Your task to perform on an android device: change keyboard looks Image 0: 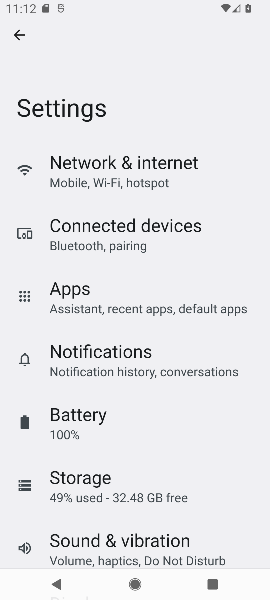
Step 0: press home button
Your task to perform on an android device: change keyboard looks Image 1: 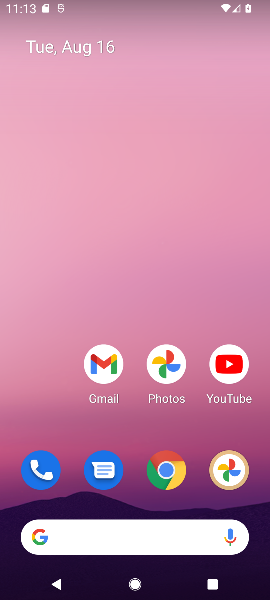
Step 1: drag from (58, 421) to (70, 3)
Your task to perform on an android device: change keyboard looks Image 2: 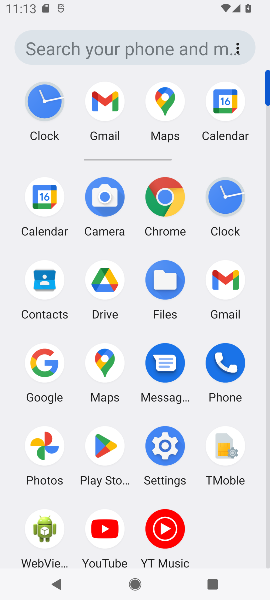
Step 2: click (165, 445)
Your task to perform on an android device: change keyboard looks Image 3: 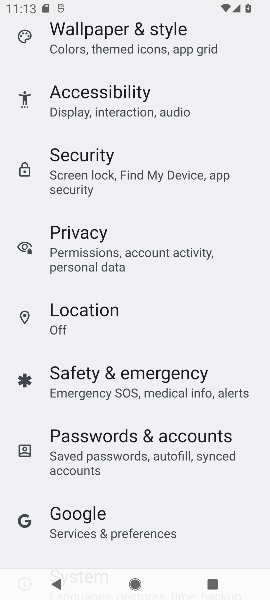
Step 3: drag from (163, 475) to (159, 2)
Your task to perform on an android device: change keyboard looks Image 4: 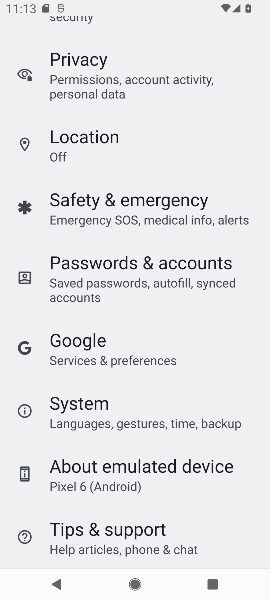
Step 4: click (149, 413)
Your task to perform on an android device: change keyboard looks Image 5: 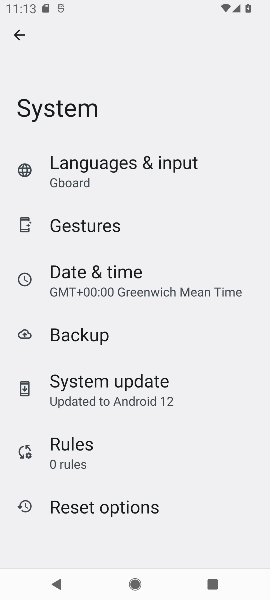
Step 5: click (132, 166)
Your task to perform on an android device: change keyboard looks Image 6: 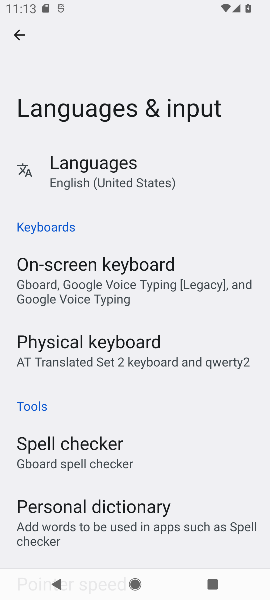
Step 6: click (127, 172)
Your task to perform on an android device: change keyboard looks Image 7: 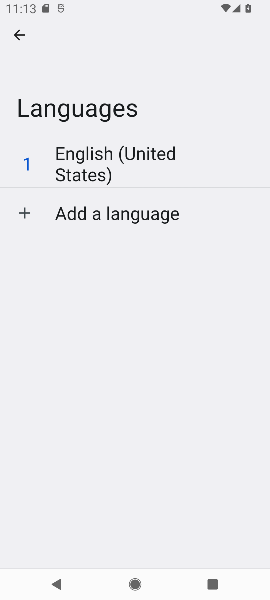
Step 7: click (26, 34)
Your task to perform on an android device: change keyboard looks Image 8: 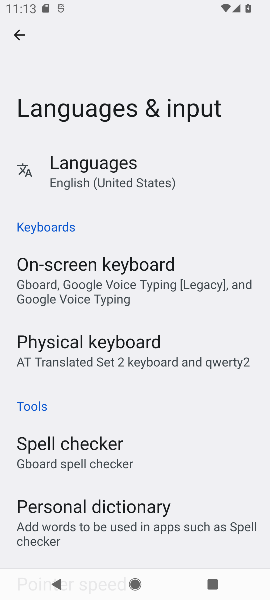
Step 8: drag from (149, 437) to (167, 166)
Your task to perform on an android device: change keyboard looks Image 9: 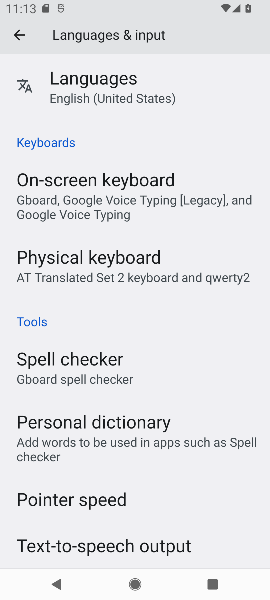
Step 9: click (136, 198)
Your task to perform on an android device: change keyboard looks Image 10: 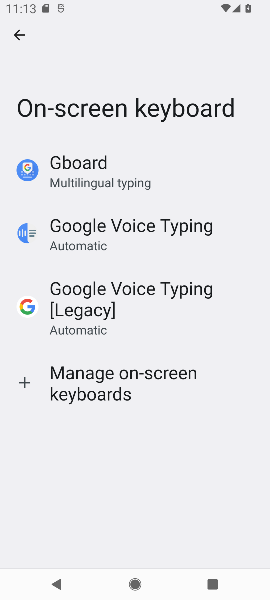
Step 10: click (122, 173)
Your task to perform on an android device: change keyboard looks Image 11: 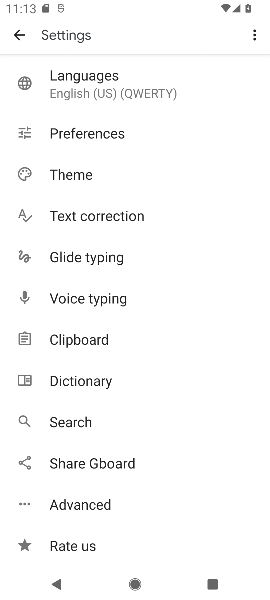
Step 11: click (91, 170)
Your task to perform on an android device: change keyboard looks Image 12: 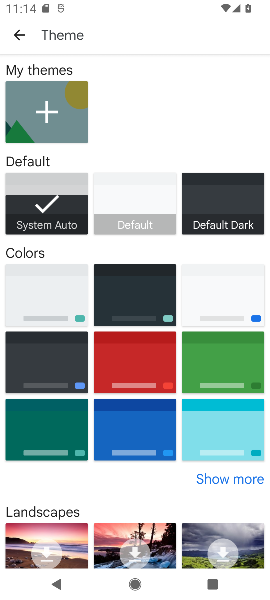
Step 12: click (126, 361)
Your task to perform on an android device: change keyboard looks Image 13: 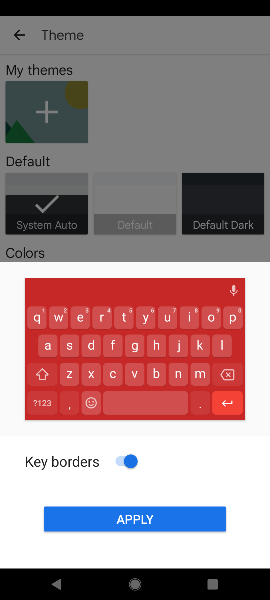
Step 13: click (190, 524)
Your task to perform on an android device: change keyboard looks Image 14: 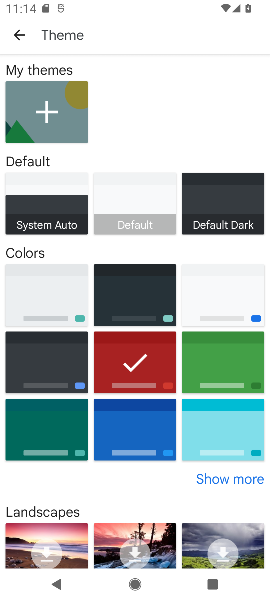
Step 14: task complete